Your task to perform on an android device: Show the shopping cart on amazon. Add razer thresher to the cart on amazon Image 0: 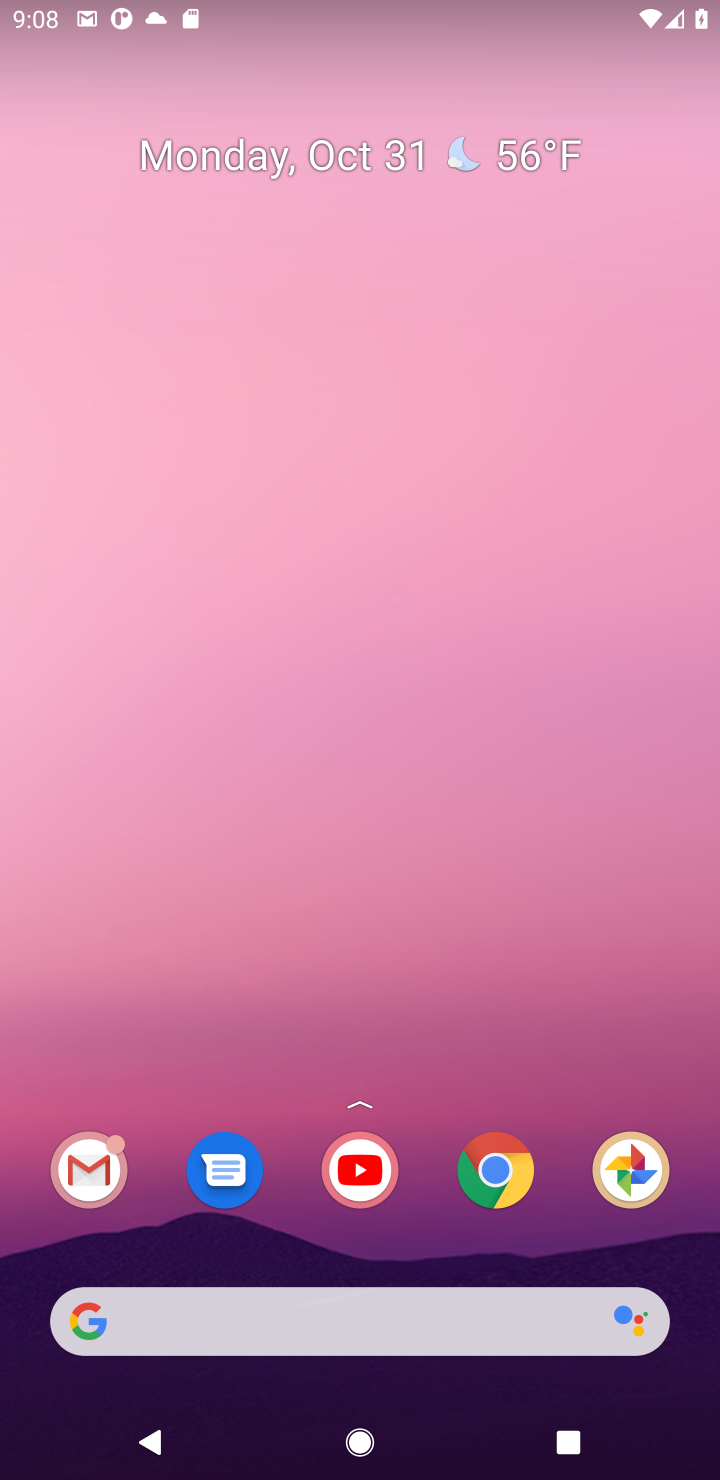
Step 0: click (489, 1201)
Your task to perform on an android device: Show the shopping cart on amazon. Add razer thresher to the cart on amazon Image 1: 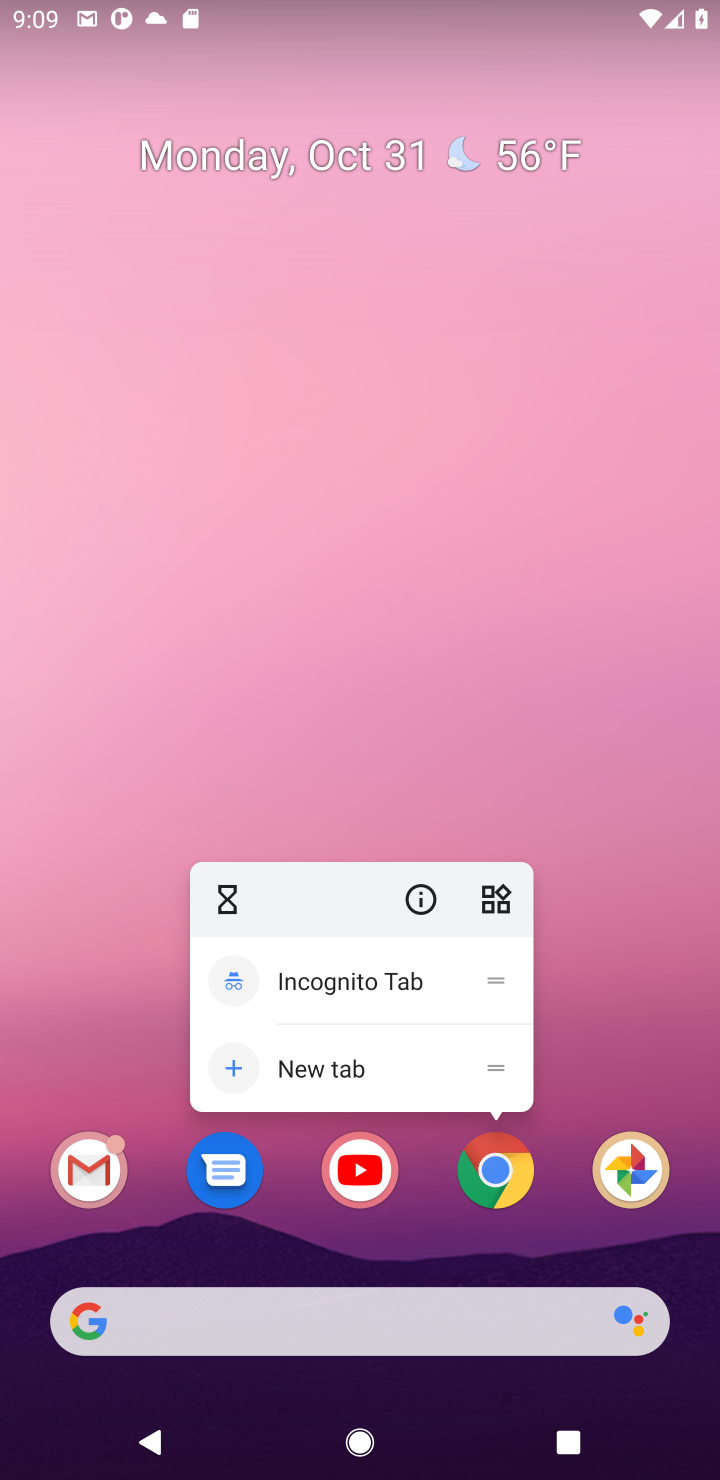
Step 1: click (489, 1201)
Your task to perform on an android device: Show the shopping cart on amazon. Add razer thresher to the cart on amazon Image 2: 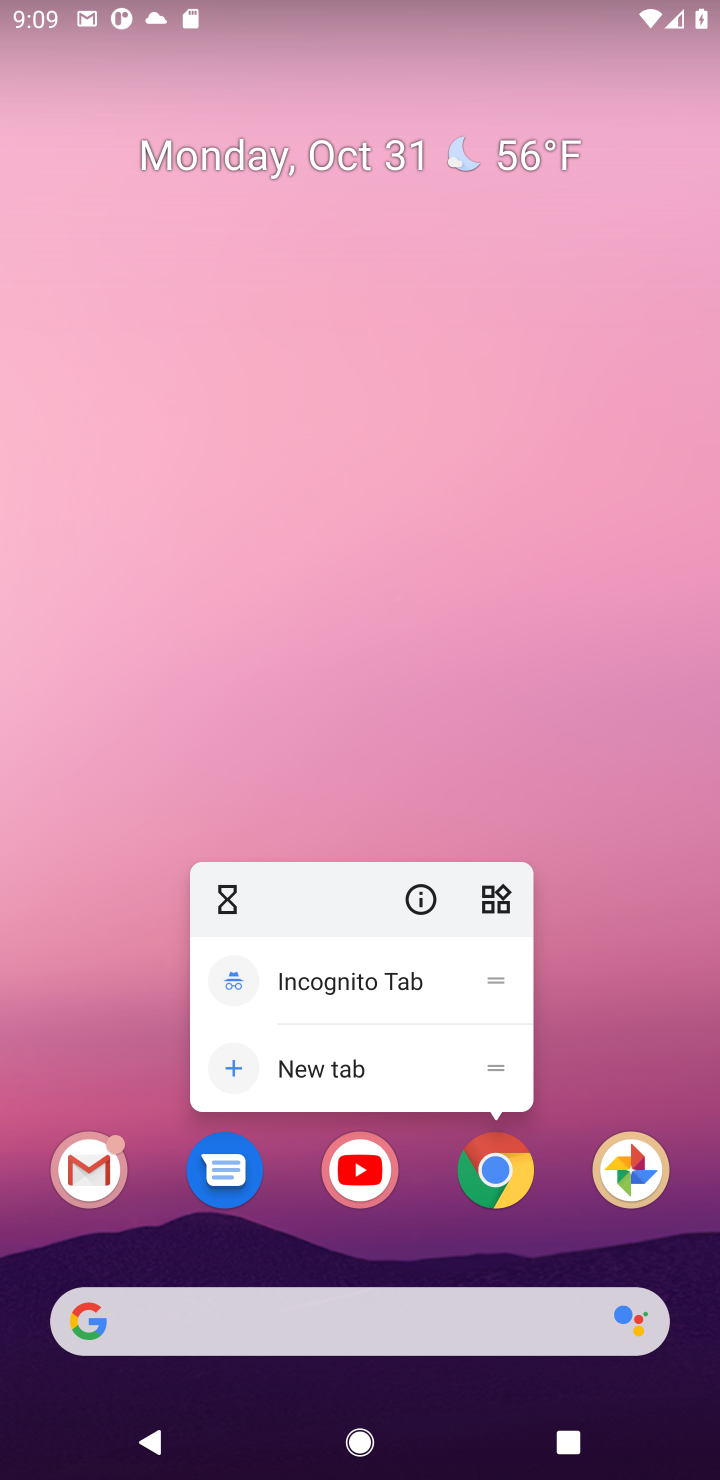
Step 2: click (500, 1173)
Your task to perform on an android device: Show the shopping cart on amazon. Add razer thresher to the cart on amazon Image 3: 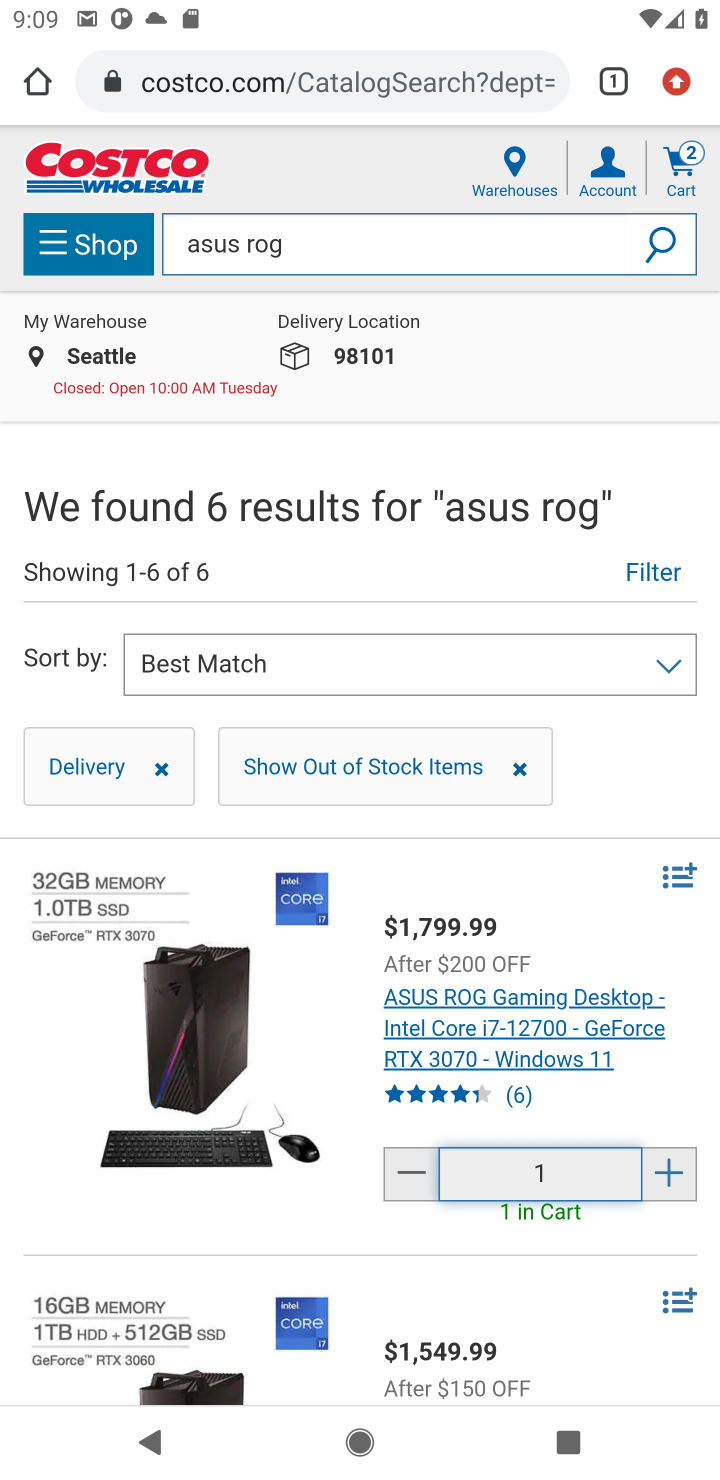
Step 3: click (329, 89)
Your task to perform on an android device: Show the shopping cart on amazon. Add razer thresher to the cart on amazon Image 4: 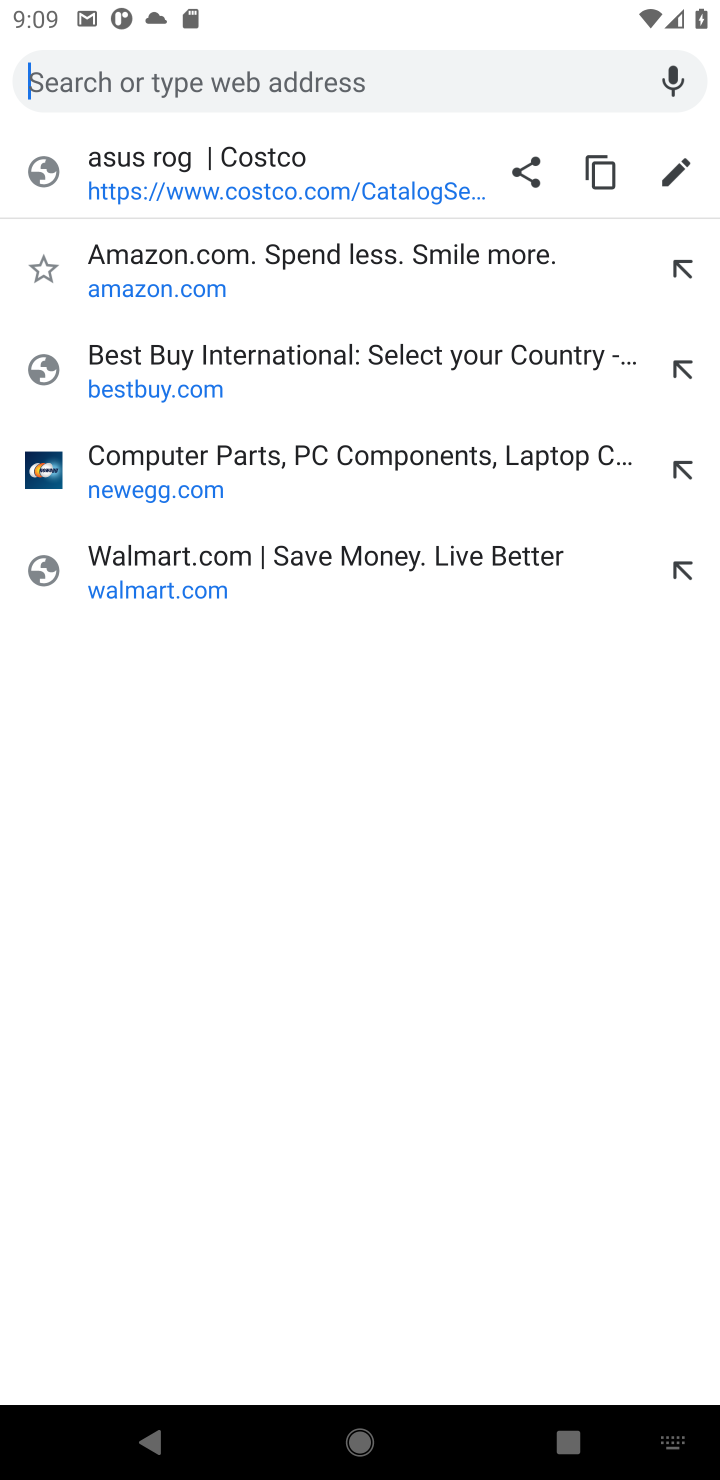
Step 4: click (76, 255)
Your task to perform on an android device: Show the shopping cart on amazon. Add razer thresher to the cart on amazon Image 5: 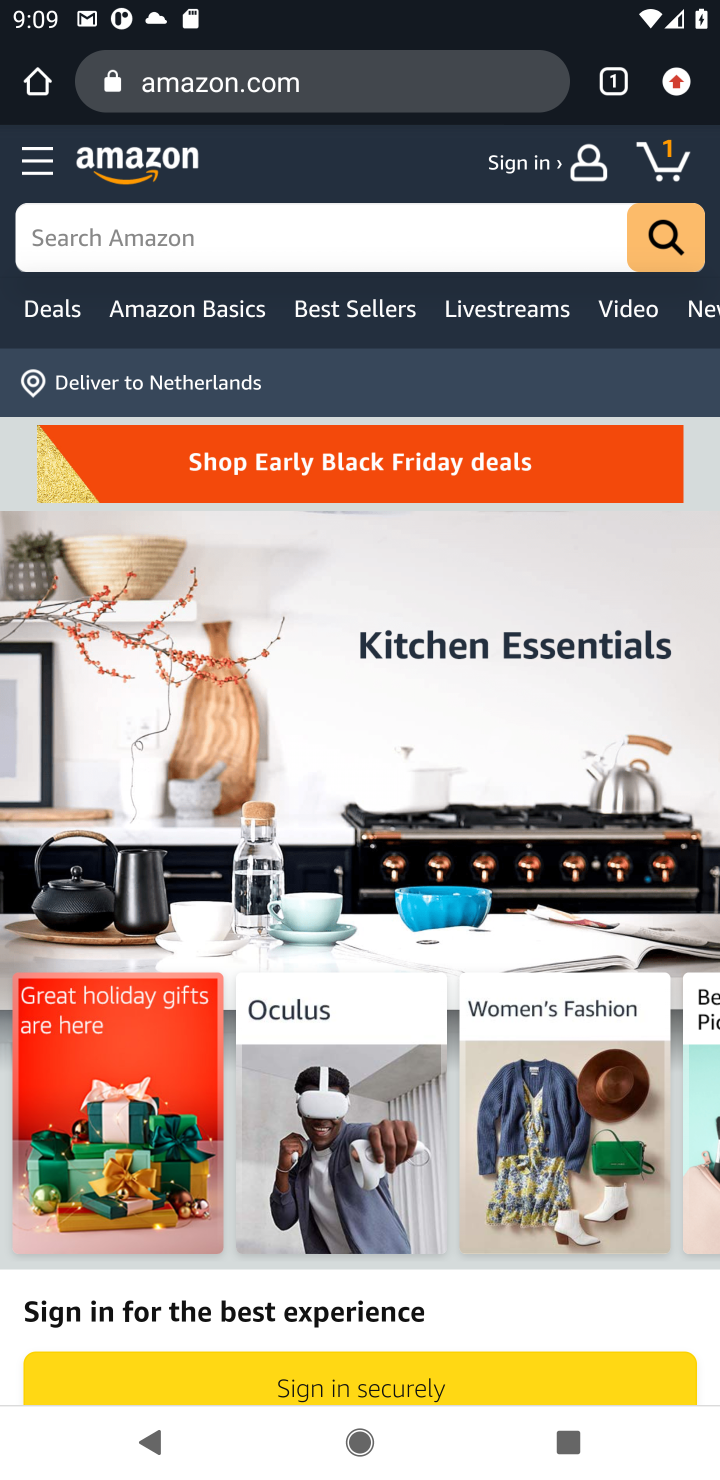
Step 5: click (662, 161)
Your task to perform on an android device: Show the shopping cart on amazon. Add razer thresher to the cart on amazon Image 6: 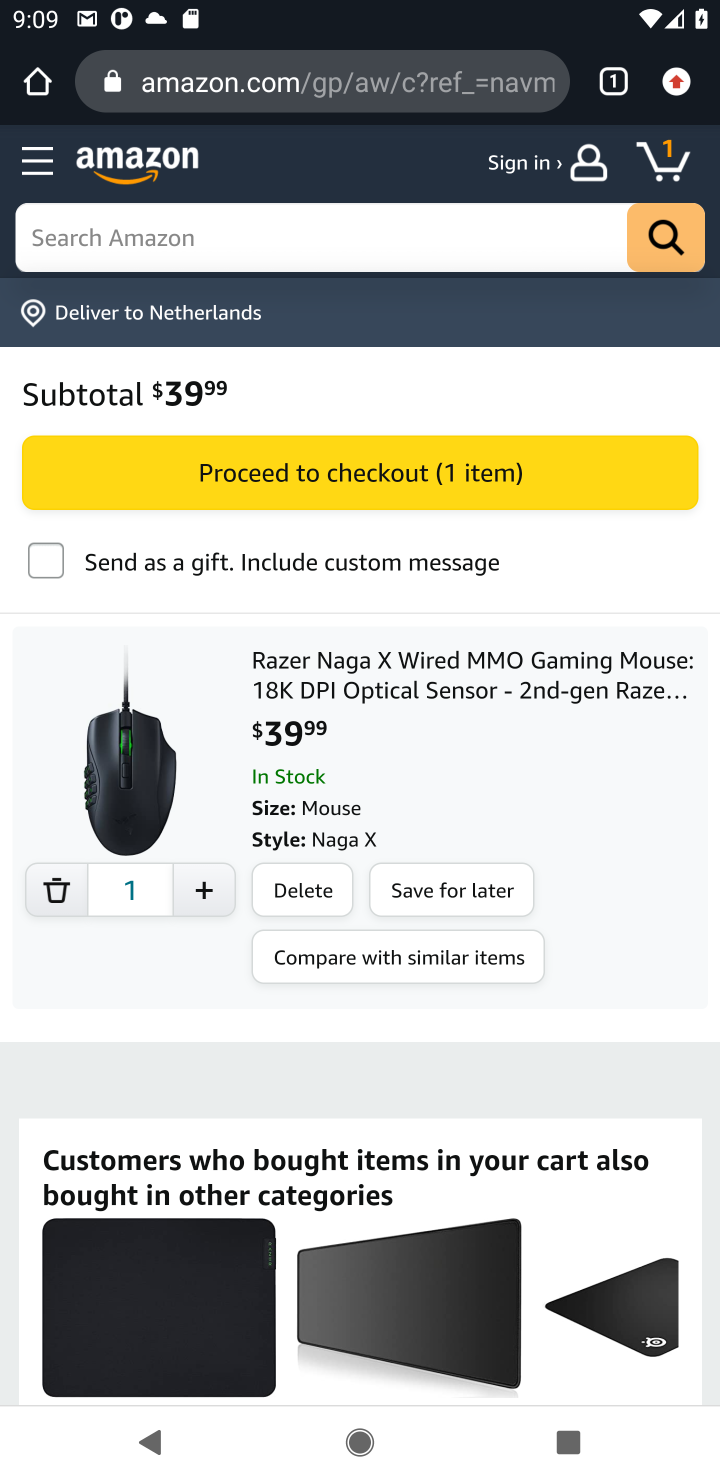
Step 6: click (192, 244)
Your task to perform on an android device: Show the shopping cart on amazon. Add razer thresher to the cart on amazon Image 7: 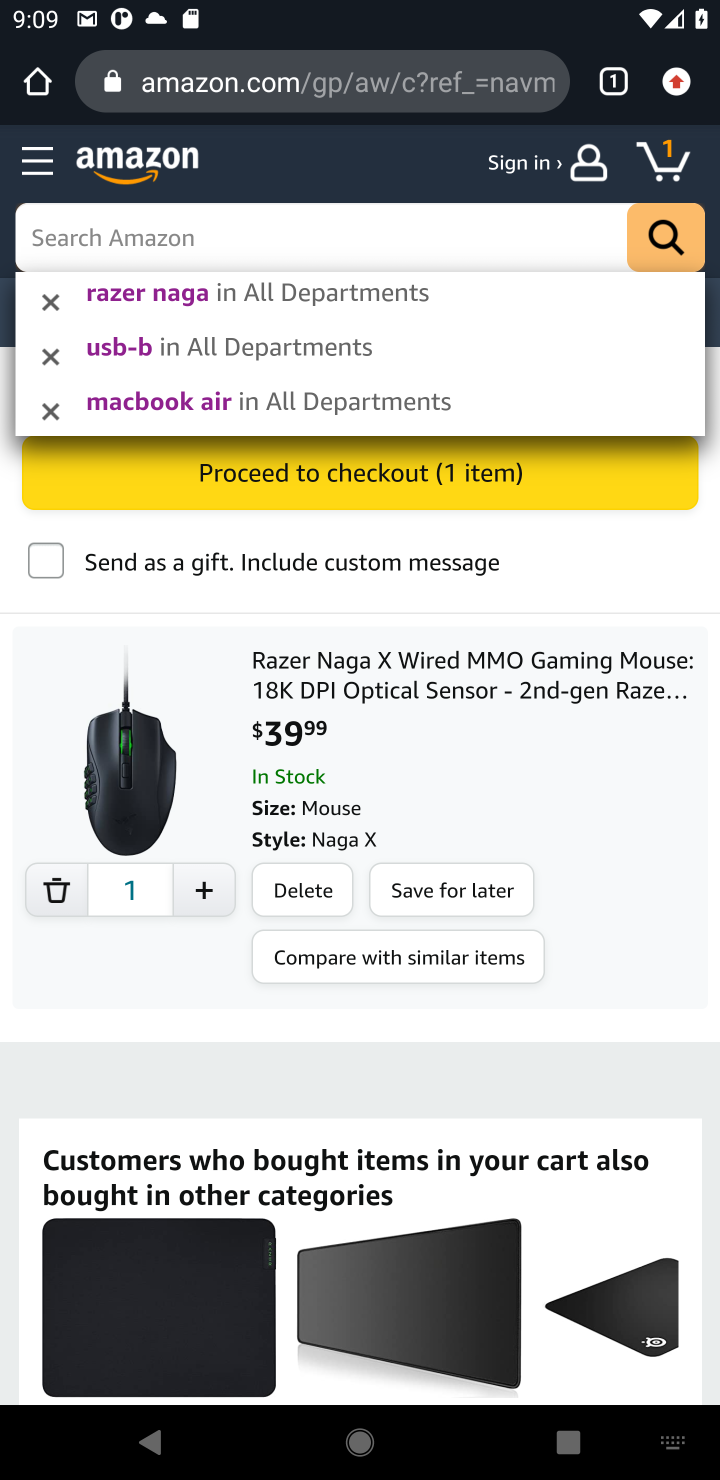
Step 7: type "razer thresher"
Your task to perform on an android device: Show the shopping cart on amazon. Add razer thresher to the cart on amazon Image 8: 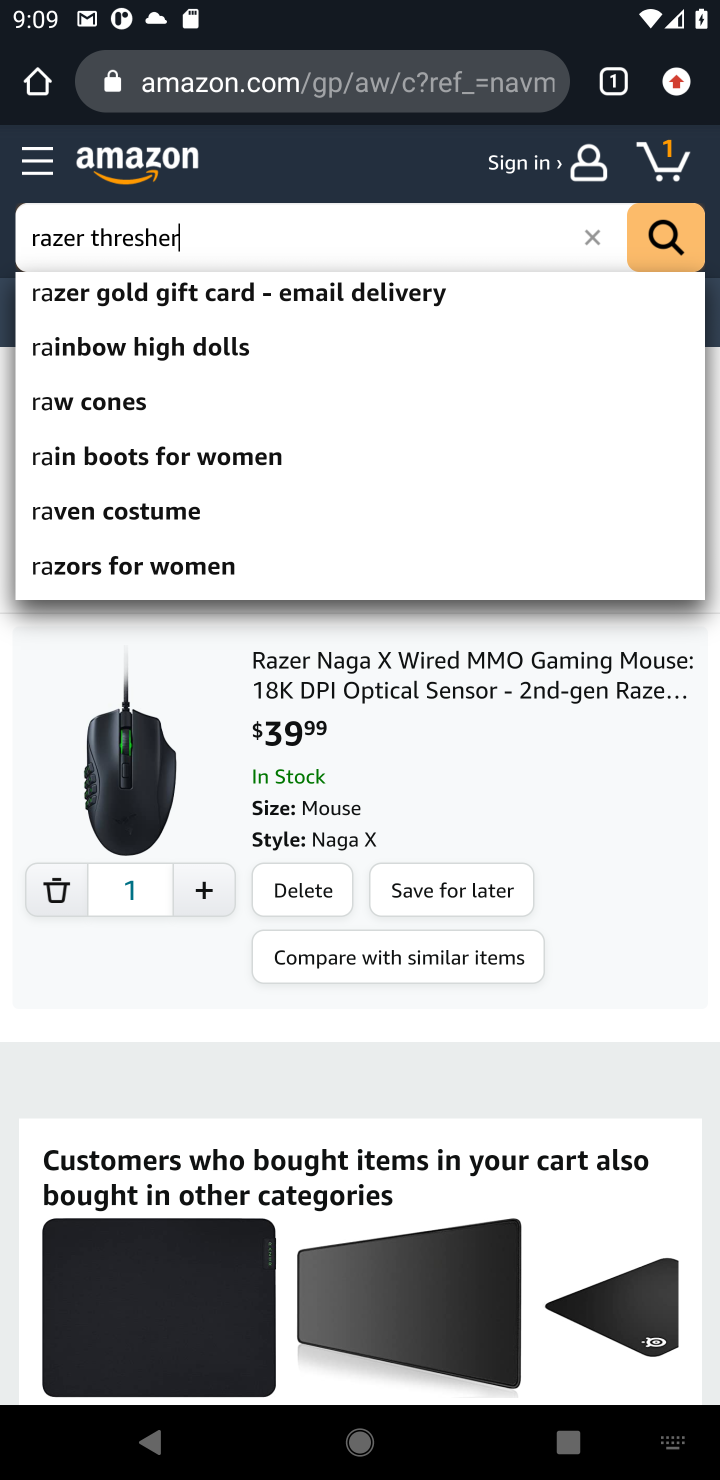
Step 8: type ""
Your task to perform on an android device: Show the shopping cart on amazon. Add razer thresher to the cart on amazon Image 9: 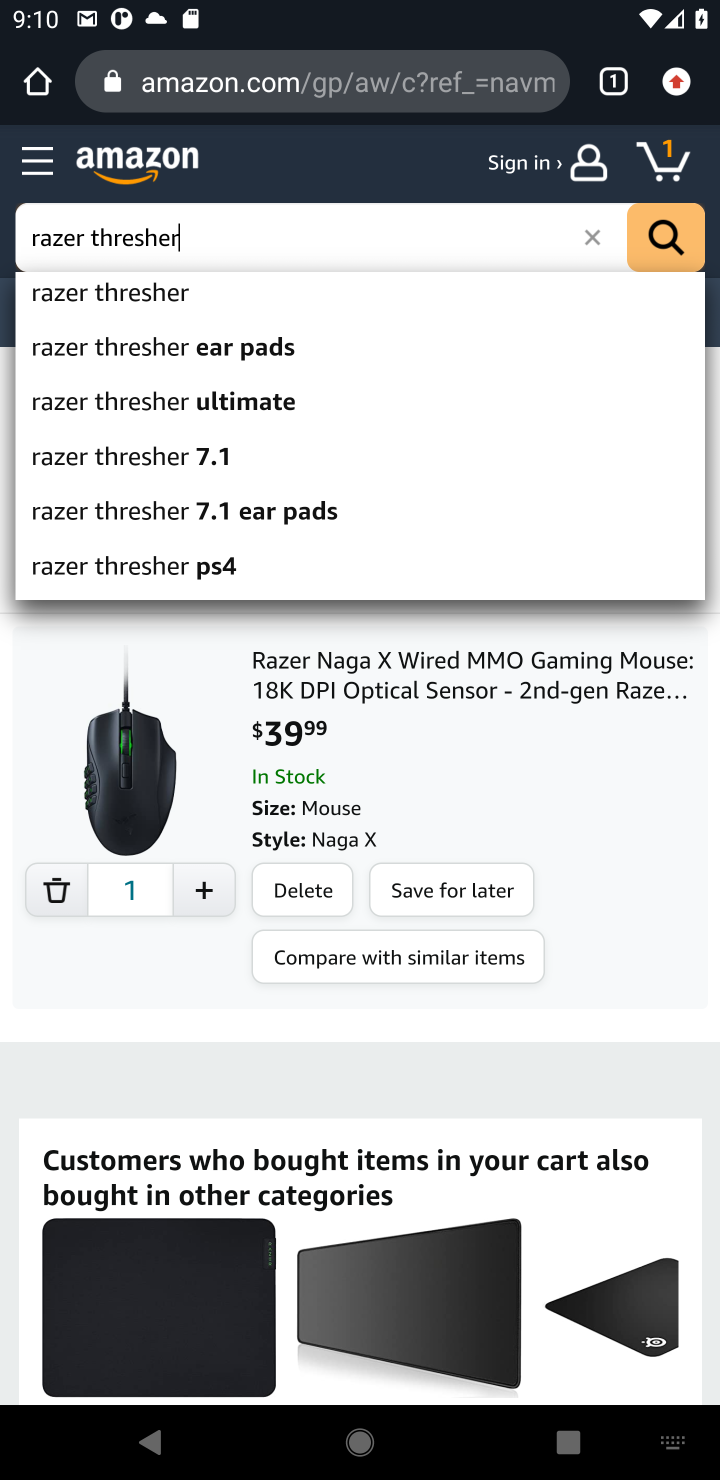
Step 9: click (666, 262)
Your task to perform on an android device: Show the shopping cart on amazon. Add razer thresher to the cart on amazon Image 10: 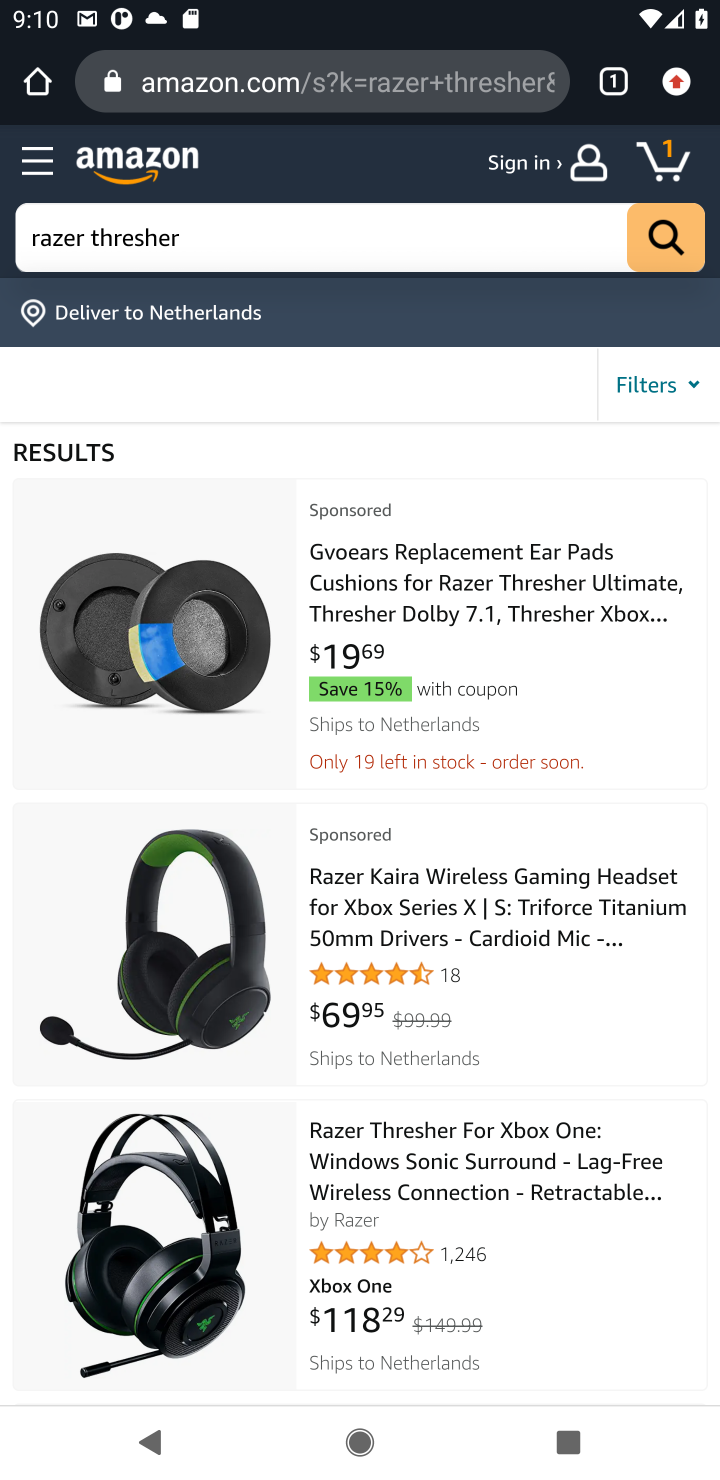
Step 10: click (446, 1117)
Your task to perform on an android device: Show the shopping cart on amazon. Add razer thresher to the cart on amazon Image 11: 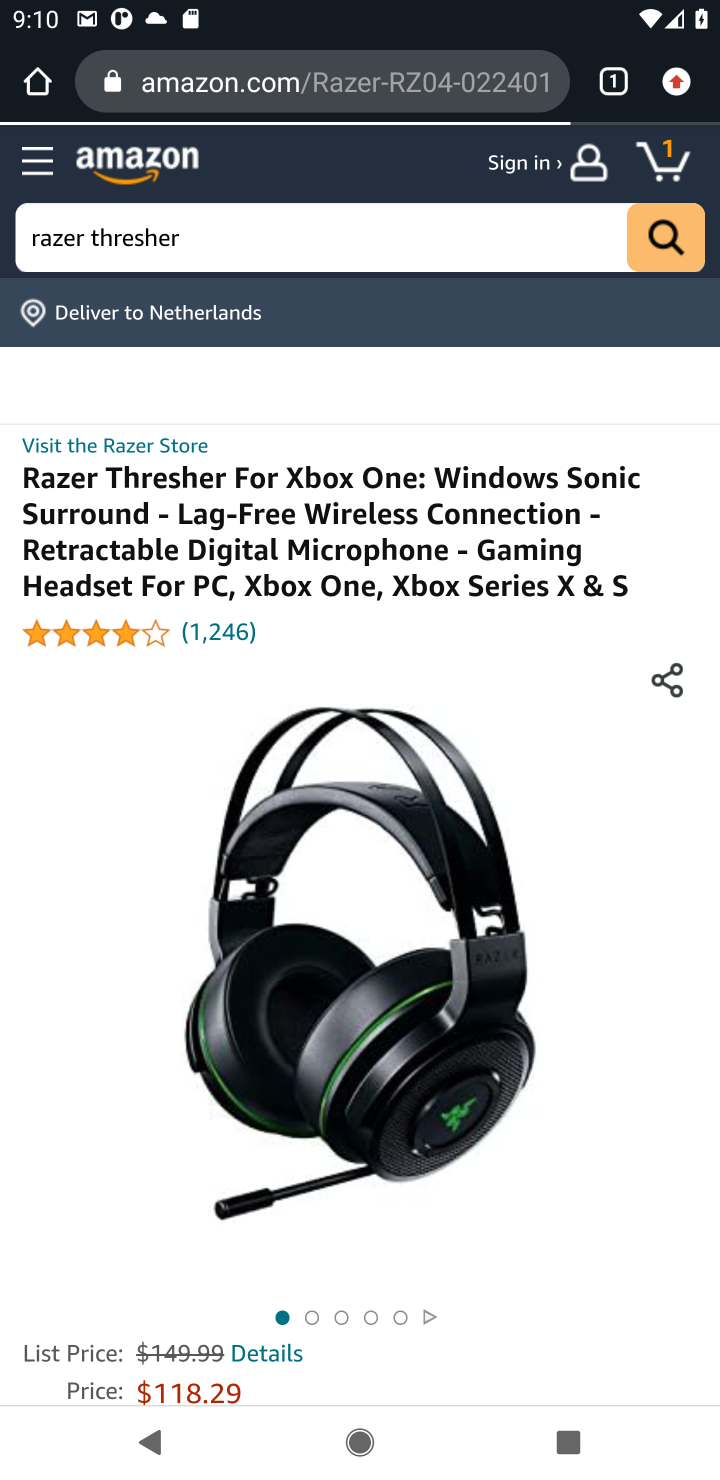
Step 11: drag from (305, 1267) to (245, 373)
Your task to perform on an android device: Show the shopping cart on amazon. Add razer thresher to the cart on amazon Image 12: 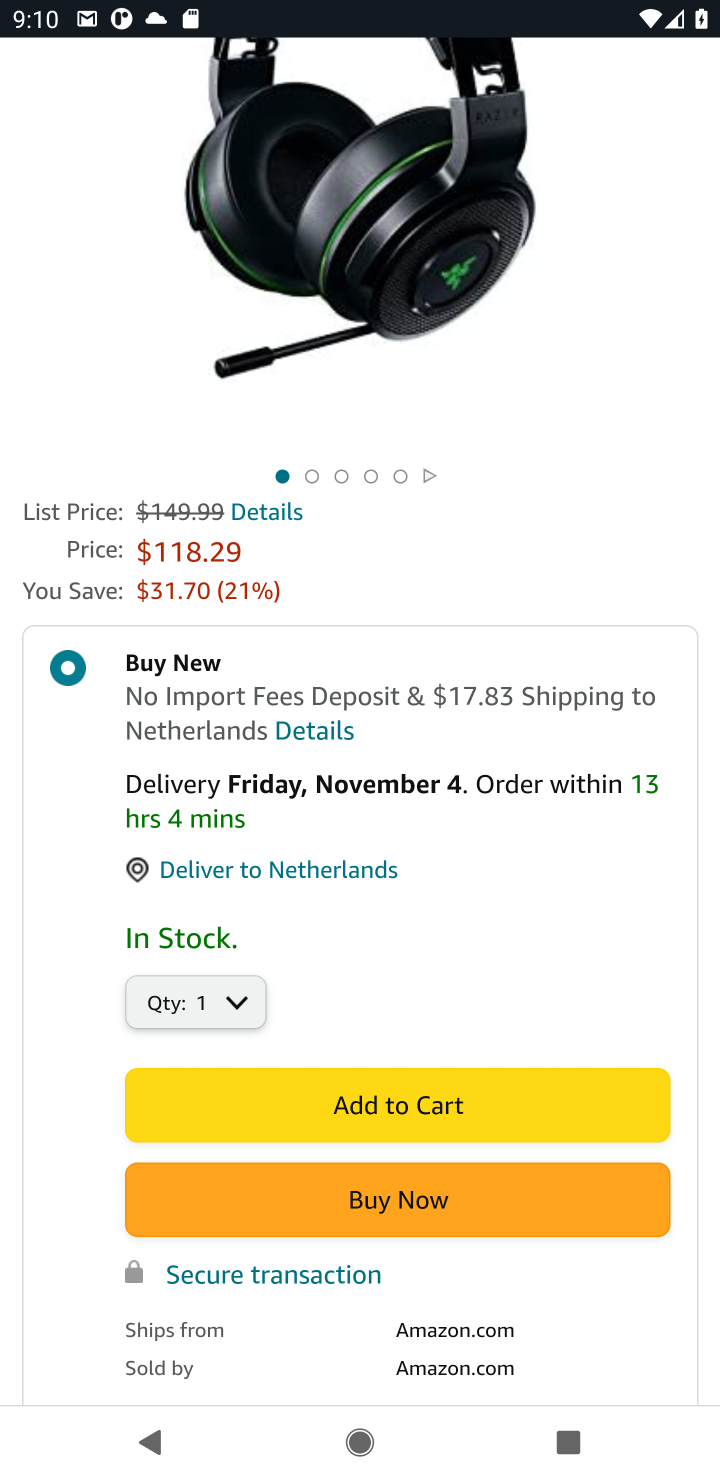
Step 12: click (281, 1068)
Your task to perform on an android device: Show the shopping cart on amazon. Add razer thresher to the cart on amazon Image 13: 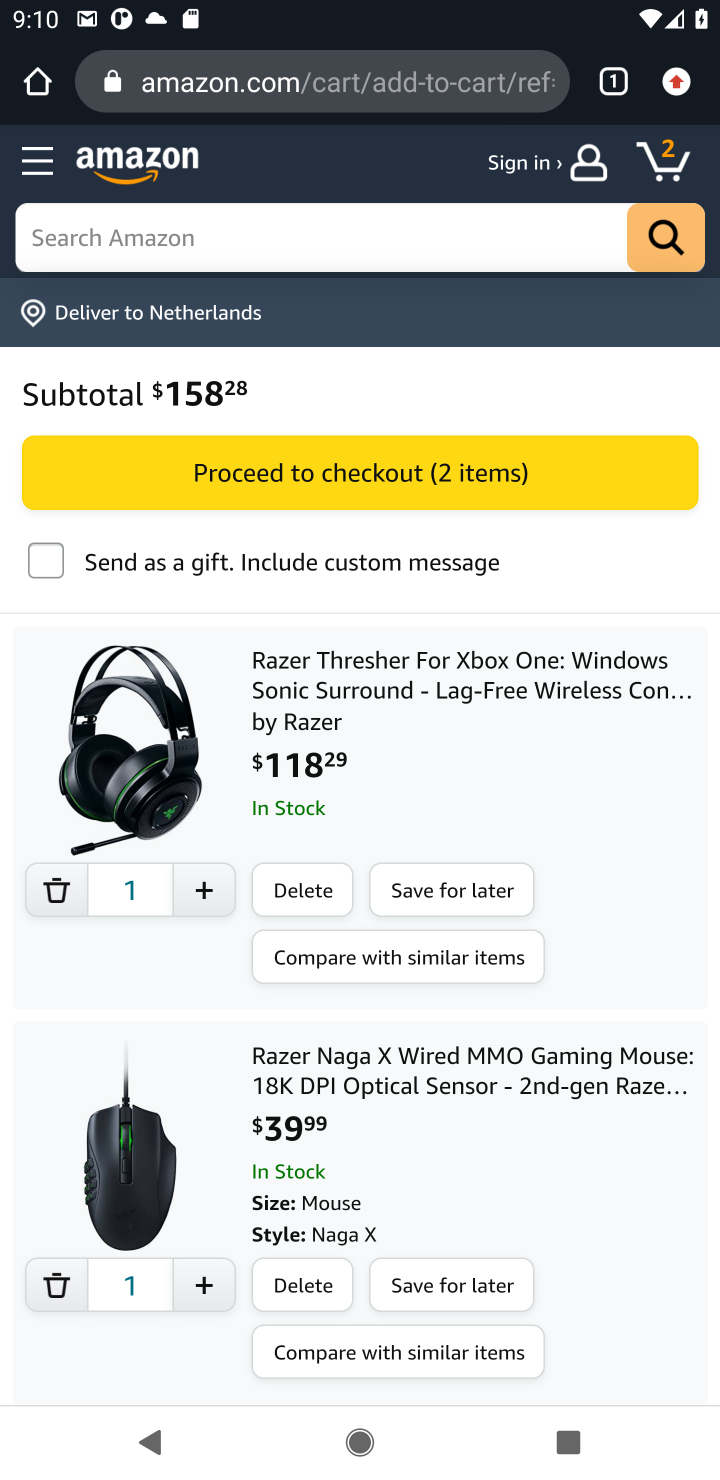
Step 13: task complete